Your task to perform on an android device: move an email to a new category in the gmail app Image 0: 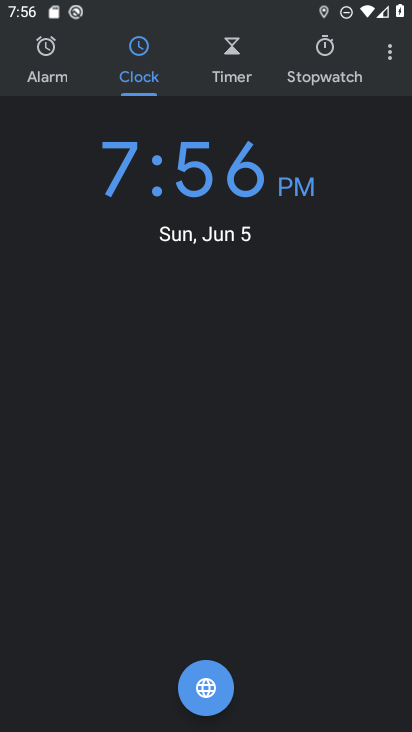
Step 0: press home button
Your task to perform on an android device: move an email to a new category in the gmail app Image 1: 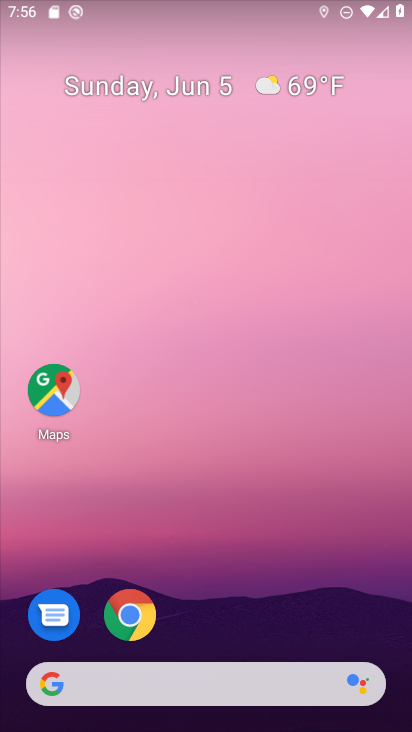
Step 1: drag from (205, 624) to (159, 131)
Your task to perform on an android device: move an email to a new category in the gmail app Image 2: 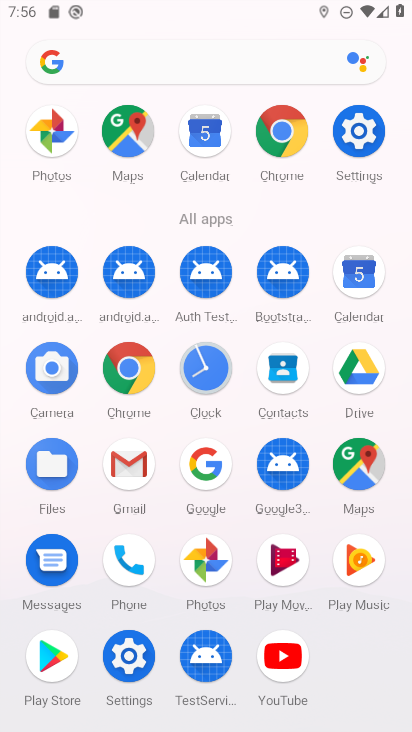
Step 2: click (123, 471)
Your task to perform on an android device: move an email to a new category in the gmail app Image 3: 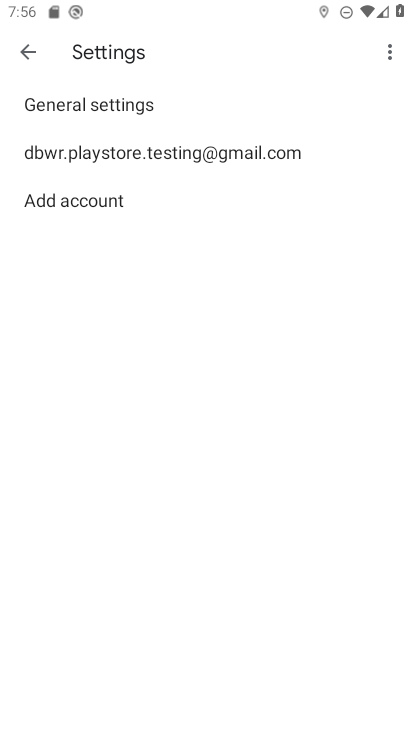
Step 3: click (182, 143)
Your task to perform on an android device: move an email to a new category in the gmail app Image 4: 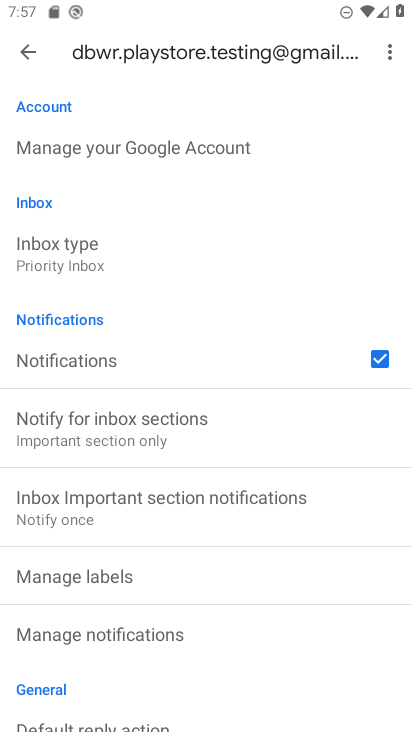
Step 4: press back button
Your task to perform on an android device: move an email to a new category in the gmail app Image 5: 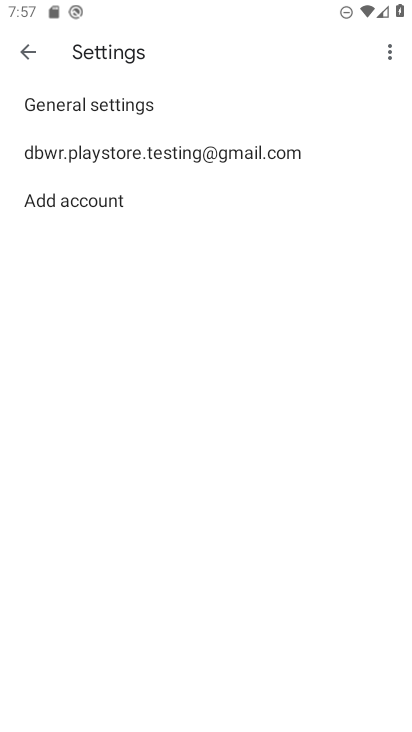
Step 5: press back button
Your task to perform on an android device: move an email to a new category in the gmail app Image 6: 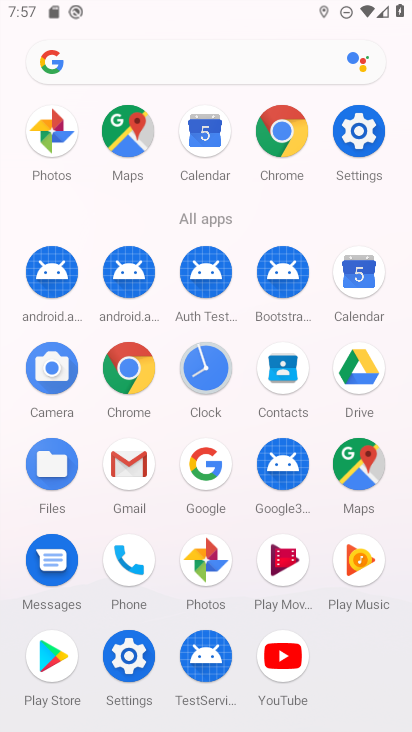
Step 6: click (131, 444)
Your task to perform on an android device: move an email to a new category in the gmail app Image 7: 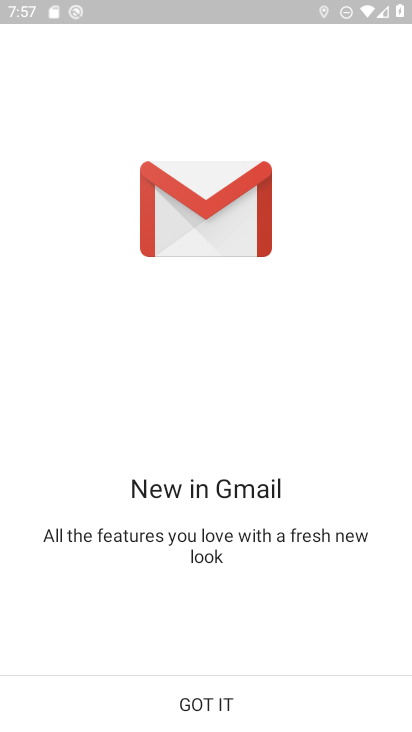
Step 7: click (205, 717)
Your task to perform on an android device: move an email to a new category in the gmail app Image 8: 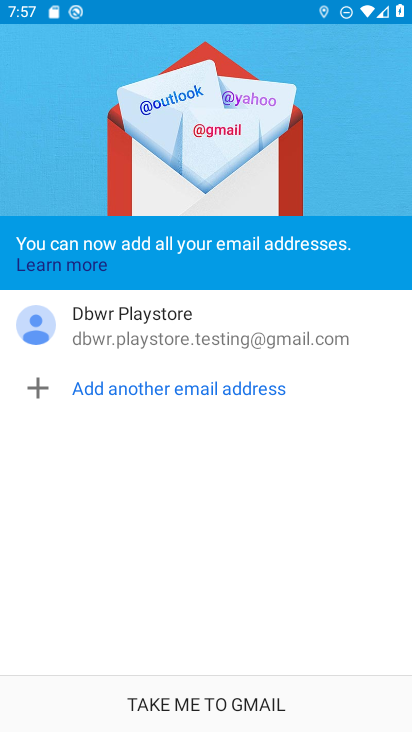
Step 8: click (205, 717)
Your task to perform on an android device: move an email to a new category in the gmail app Image 9: 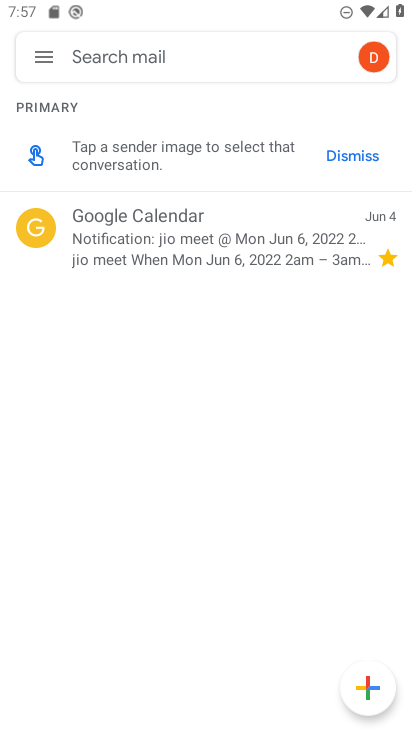
Step 9: click (267, 269)
Your task to perform on an android device: move an email to a new category in the gmail app Image 10: 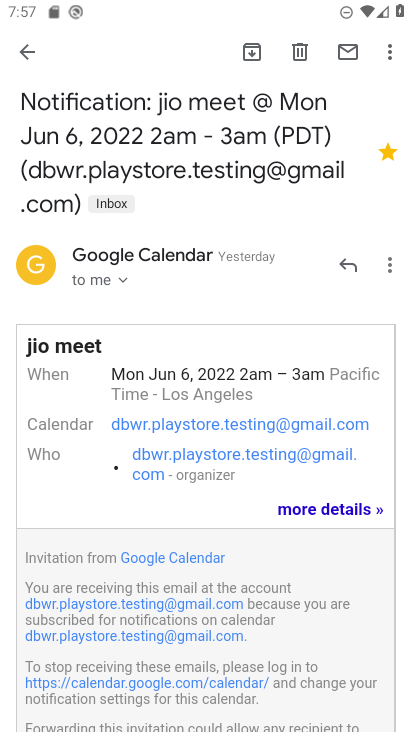
Step 10: click (389, 45)
Your task to perform on an android device: move an email to a new category in the gmail app Image 11: 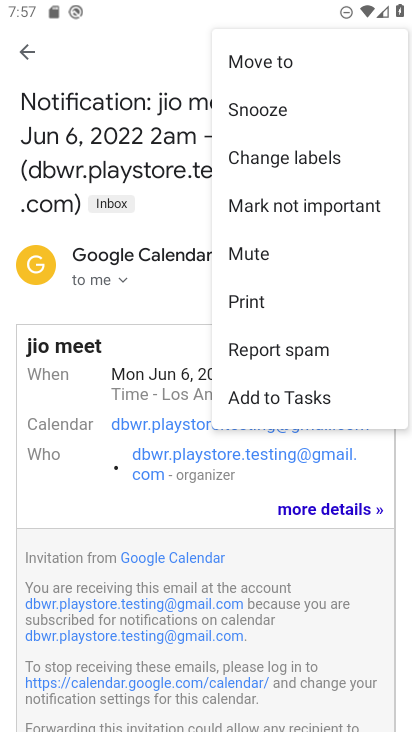
Step 11: click (279, 61)
Your task to perform on an android device: move an email to a new category in the gmail app Image 12: 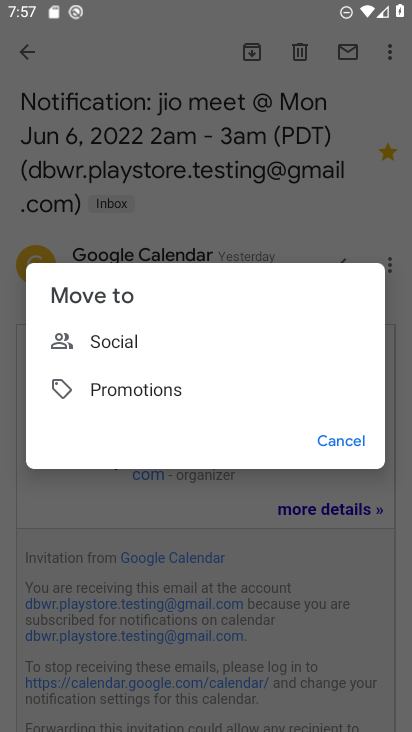
Step 12: click (109, 353)
Your task to perform on an android device: move an email to a new category in the gmail app Image 13: 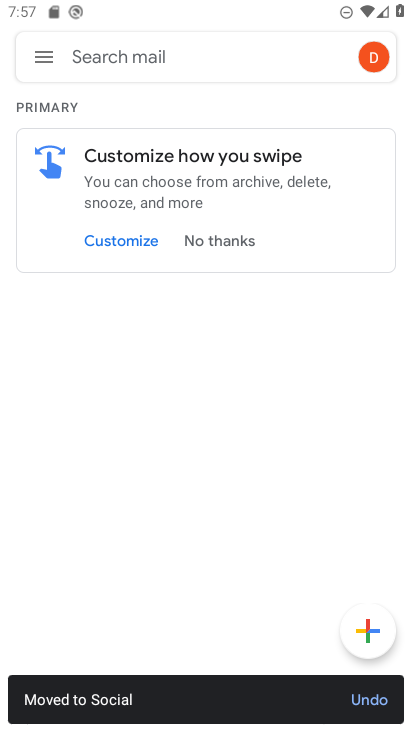
Step 13: task complete